Your task to perform on an android device: turn off priority inbox in the gmail app Image 0: 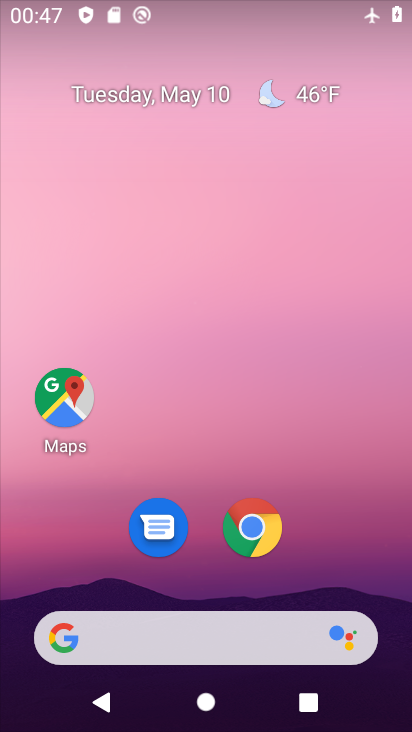
Step 0: drag from (328, 554) to (293, 118)
Your task to perform on an android device: turn off priority inbox in the gmail app Image 1: 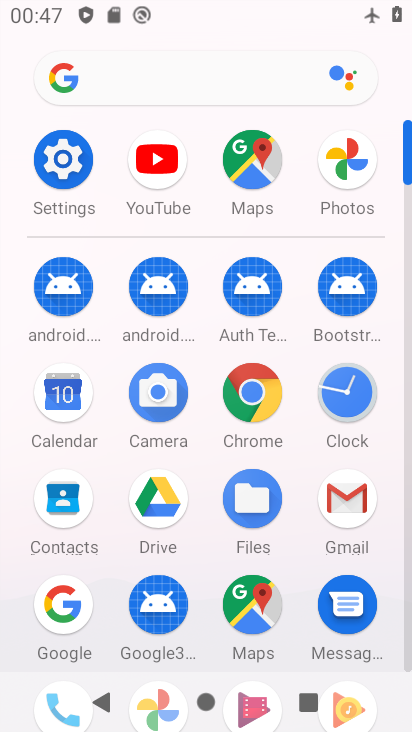
Step 1: click (337, 514)
Your task to perform on an android device: turn off priority inbox in the gmail app Image 2: 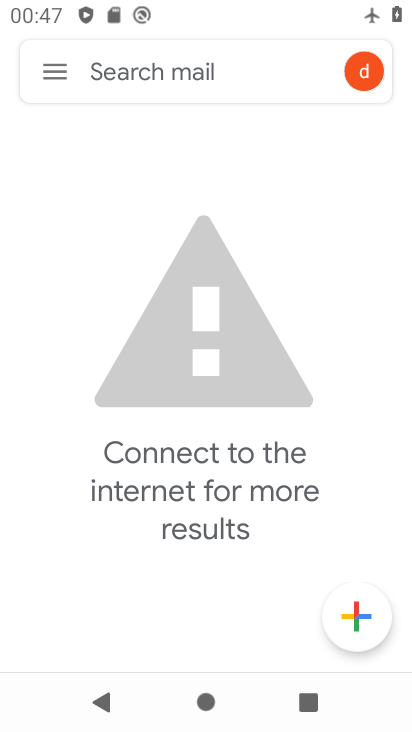
Step 2: click (53, 78)
Your task to perform on an android device: turn off priority inbox in the gmail app Image 3: 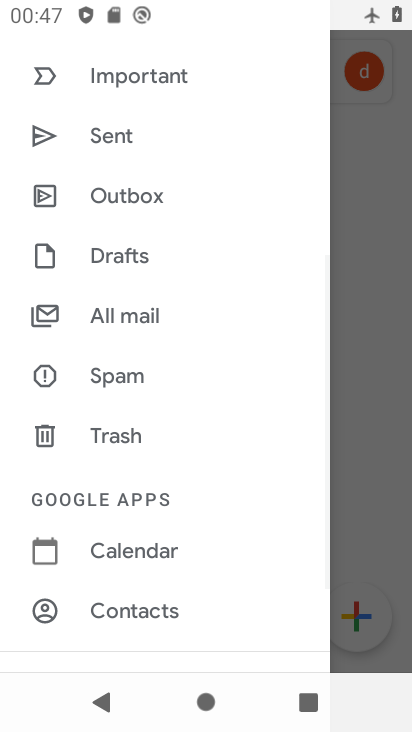
Step 3: drag from (95, 574) to (101, 449)
Your task to perform on an android device: turn off priority inbox in the gmail app Image 4: 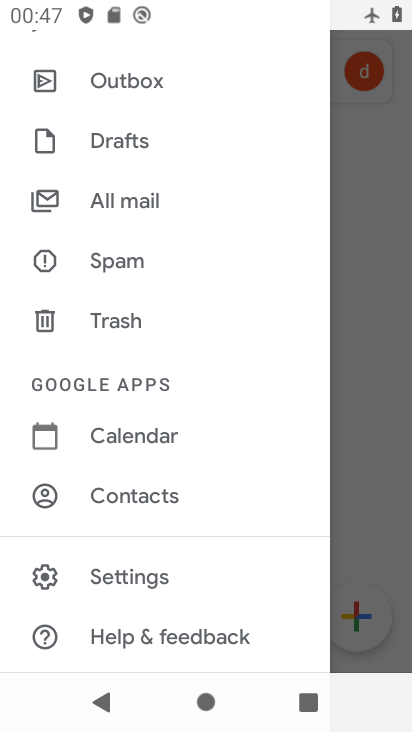
Step 4: click (42, 573)
Your task to perform on an android device: turn off priority inbox in the gmail app Image 5: 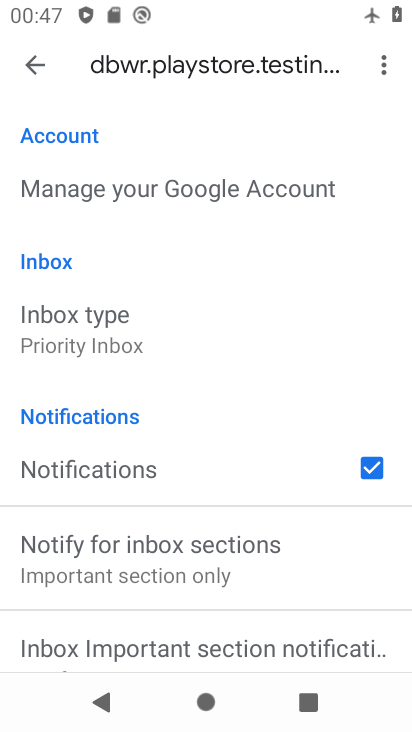
Step 5: click (113, 330)
Your task to perform on an android device: turn off priority inbox in the gmail app Image 6: 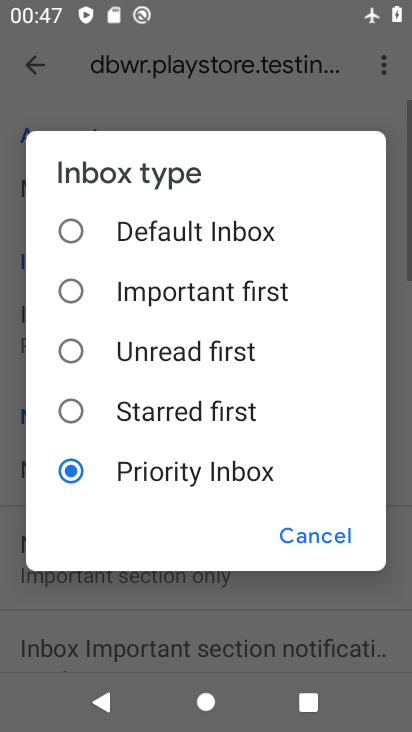
Step 6: click (113, 330)
Your task to perform on an android device: turn off priority inbox in the gmail app Image 7: 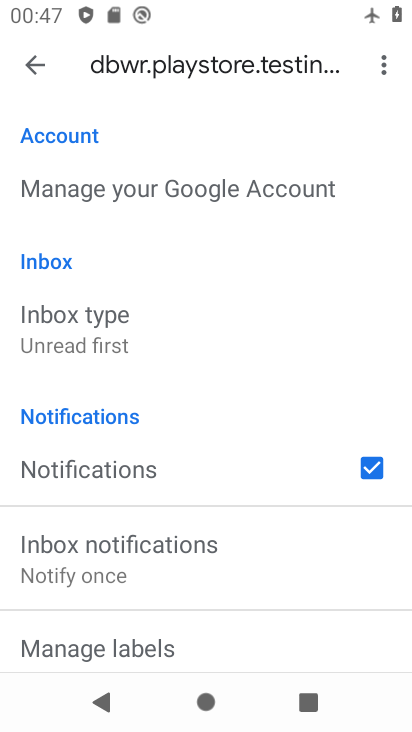
Step 7: task complete